Your task to perform on an android device: open a bookmark in the chrome app Image 0: 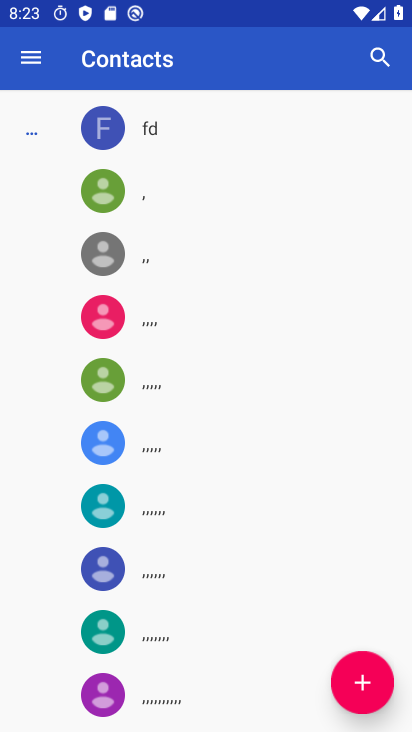
Step 0: press home button
Your task to perform on an android device: open a bookmark in the chrome app Image 1: 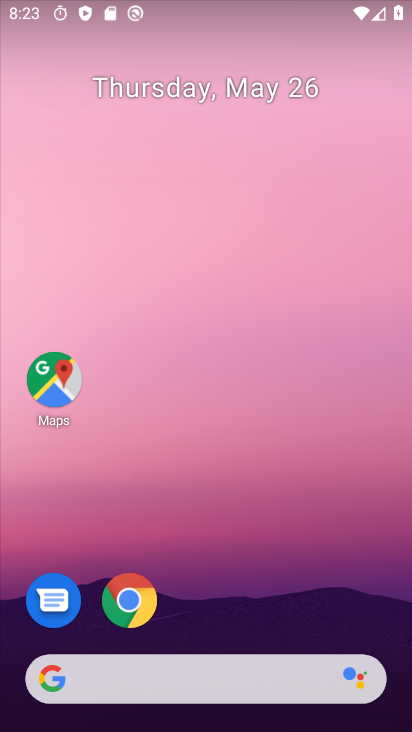
Step 1: click (130, 607)
Your task to perform on an android device: open a bookmark in the chrome app Image 2: 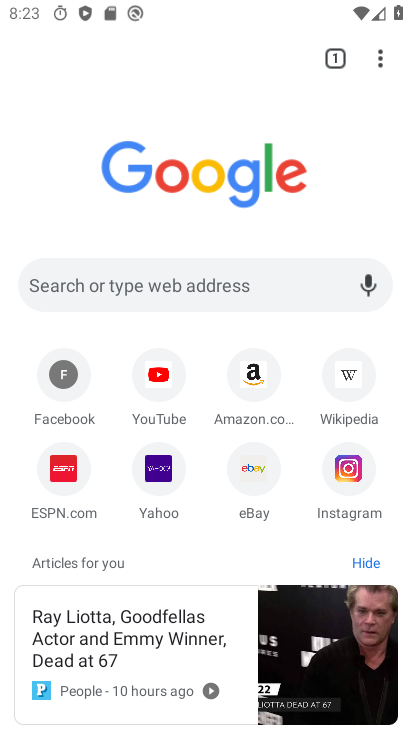
Step 2: click (379, 62)
Your task to perform on an android device: open a bookmark in the chrome app Image 3: 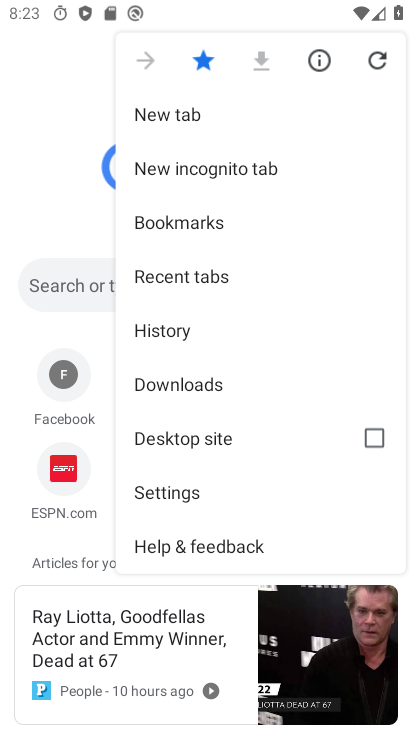
Step 3: click (239, 224)
Your task to perform on an android device: open a bookmark in the chrome app Image 4: 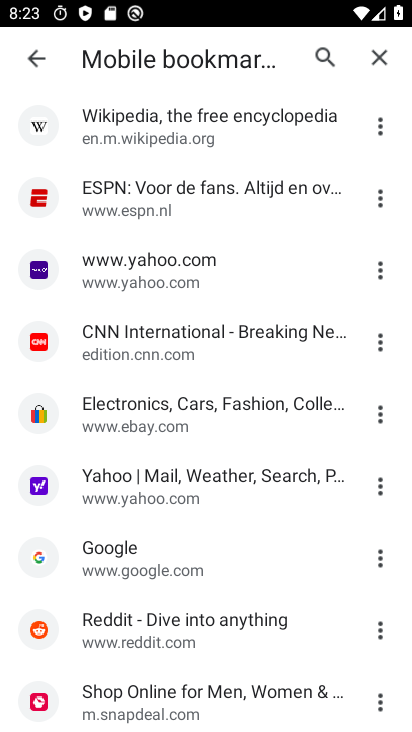
Step 4: click (145, 271)
Your task to perform on an android device: open a bookmark in the chrome app Image 5: 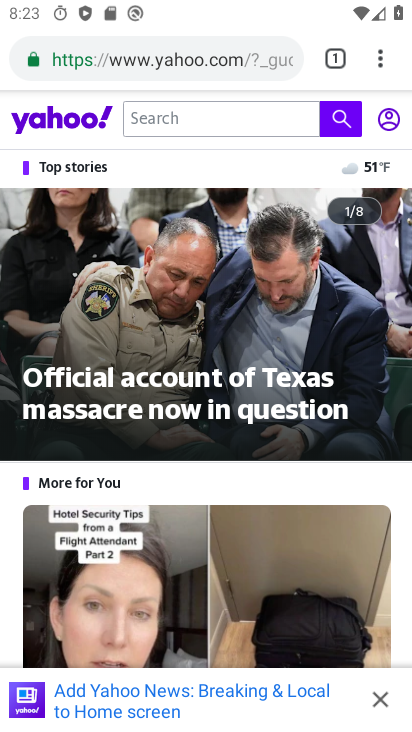
Step 5: task complete